Your task to perform on an android device: uninstall "Etsy: Buy & Sell Unique Items" Image 0: 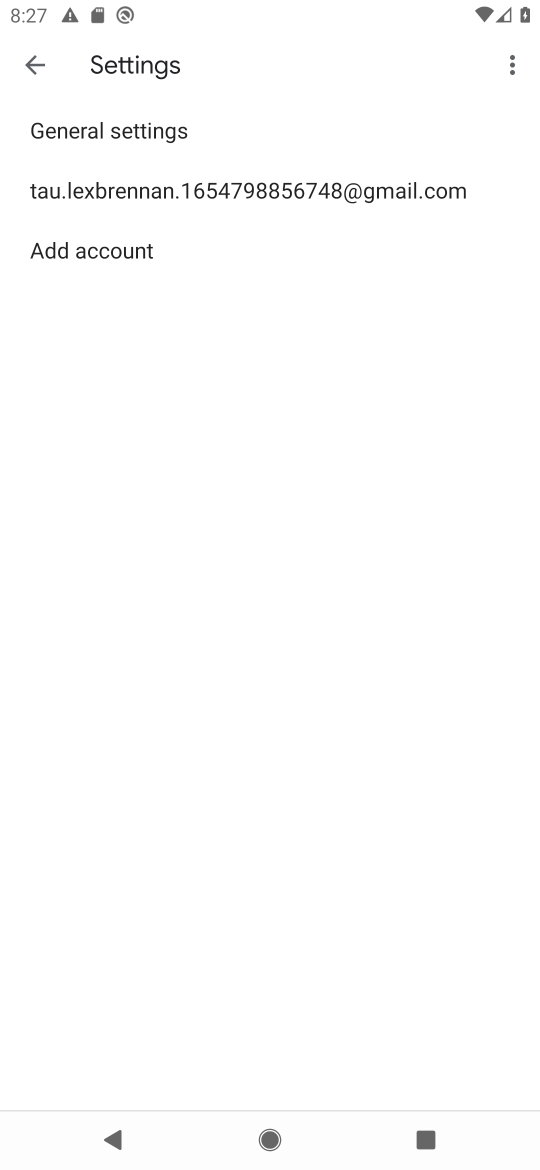
Step 0: press home button
Your task to perform on an android device: uninstall "Etsy: Buy & Sell Unique Items" Image 1: 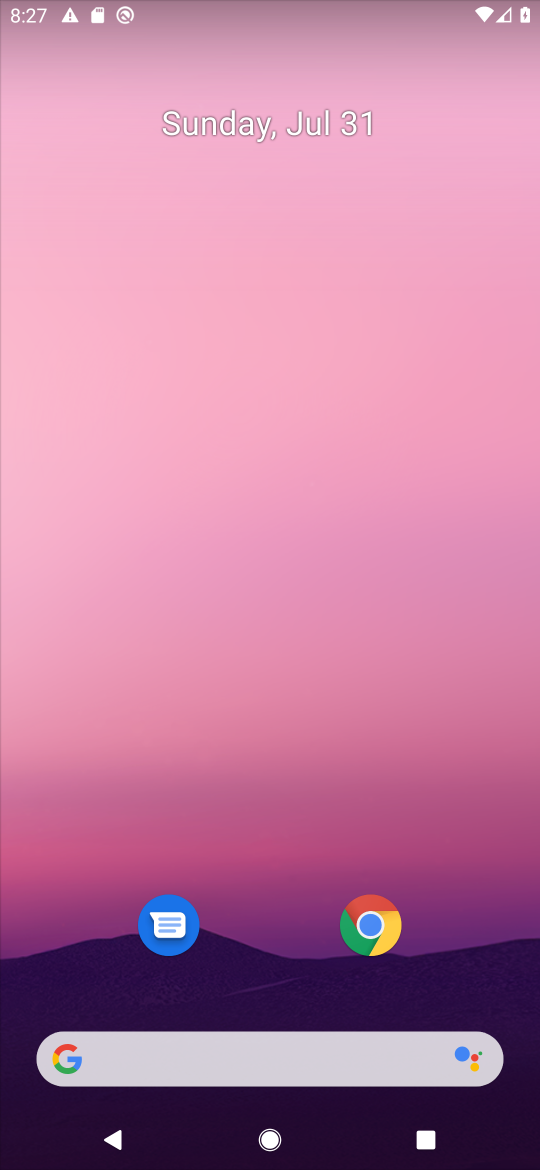
Step 1: drag from (276, 977) to (268, 249)
Your task to perform on an android device: uninstall "Etsy: Buy & Sell Unique Items" Image 2: 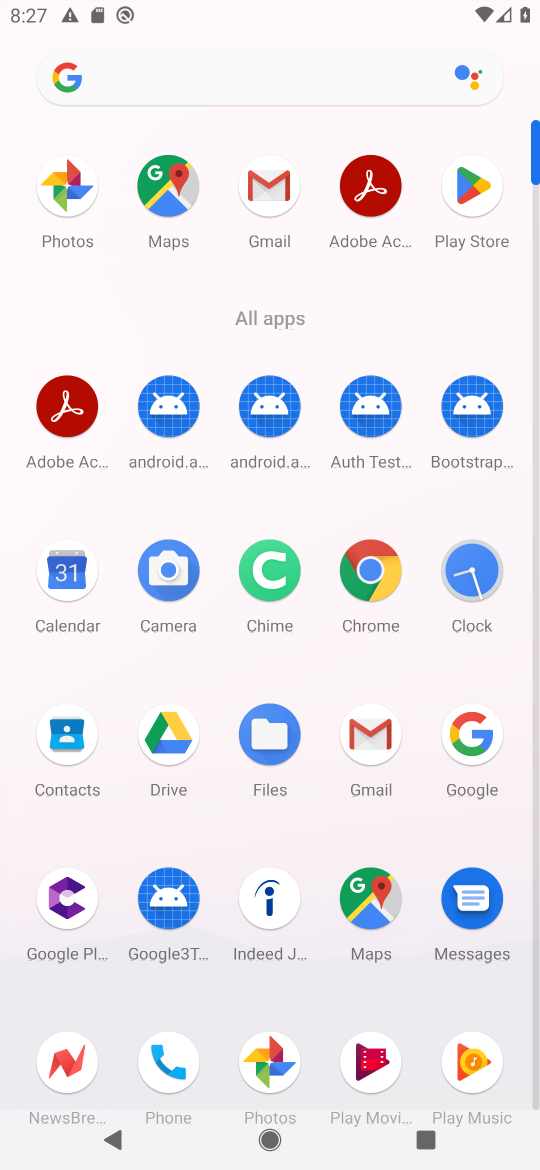
Step 2: click (474, 193)
Your task to perform on an android device: uninstall "Etsy: Buy & Sell Unique Items" Image 3: 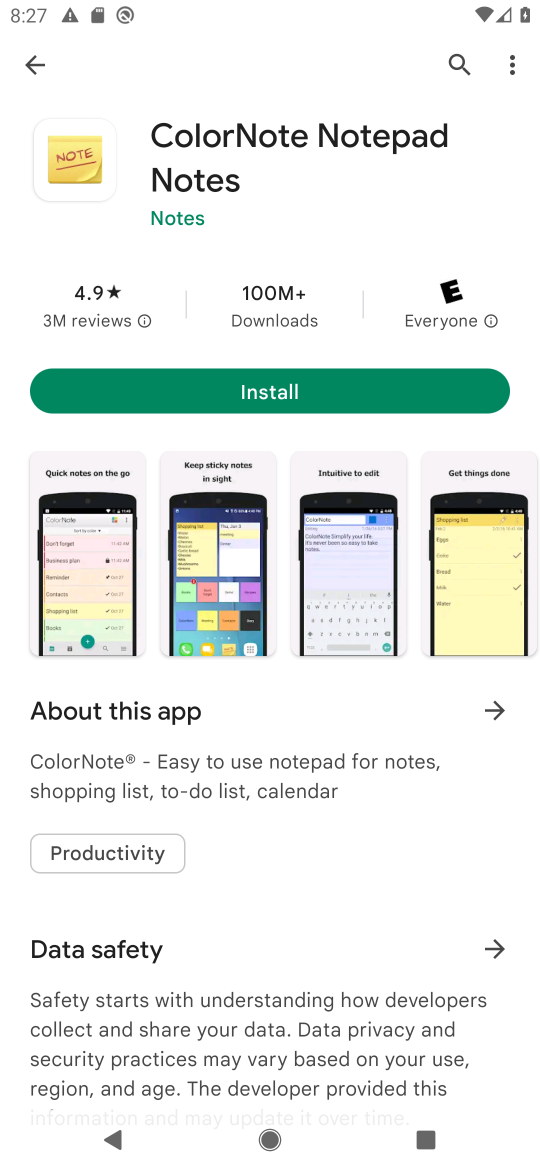
Step 3: click (459, 58)
Your task to perform on an android device: uninstall "Etsy: Buy & Sell Unique Items" Image 4: 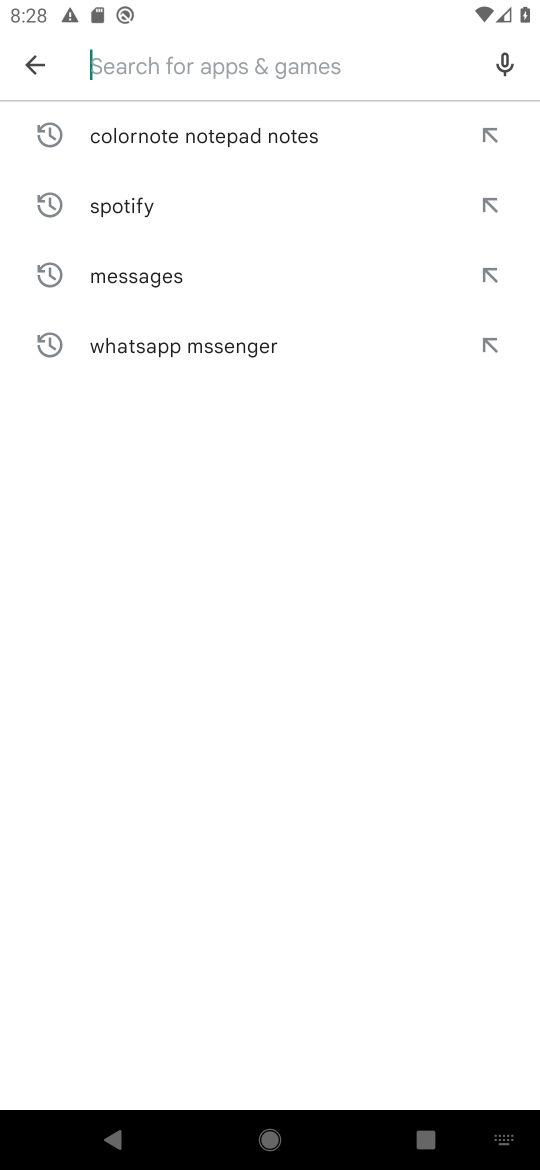
Step 4: type "etsy: Buy & sell unique items"
Your task to perform on an android device: uninstall "Etsy: Buy & Sell Unique Items" Image 5: 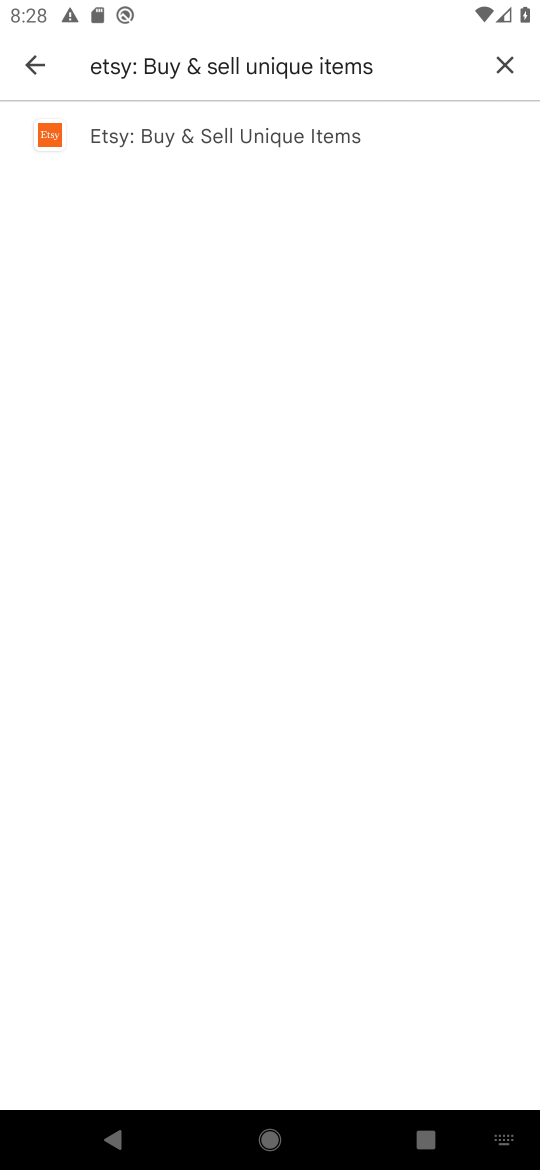
Step 5: click (207, 137)
Your task to perform on an android device: uninstall "Etsy: Buy & Sell Unique Items" Image 6: 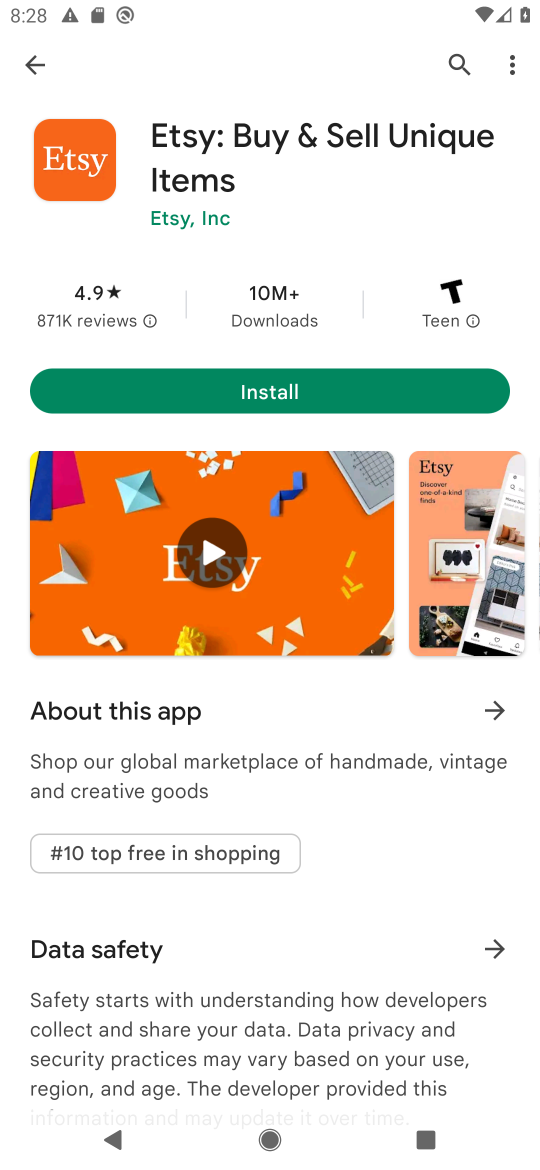
Step 6: task complete